Your task to perform on an android device: Go to eBay Image 0: 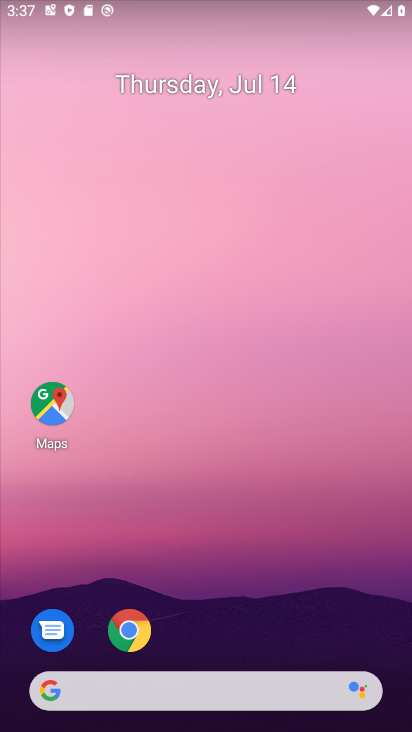
Step 0: click (127, 635)
Your task to perform on an android device: Go to eBay Image 1: 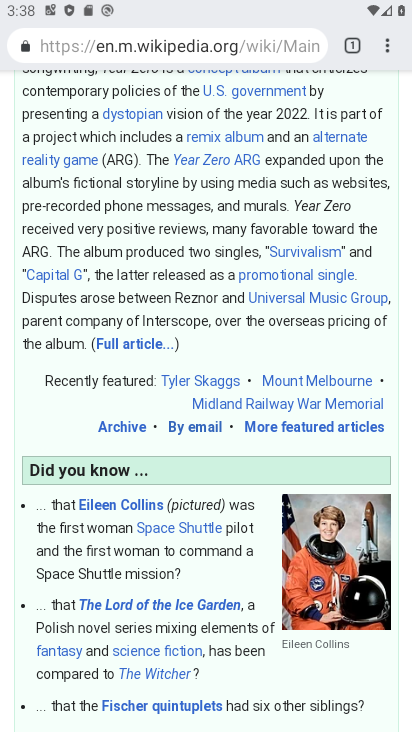
Step 1: click (355, 50)
Your task to perform on an android device: Go to eBay Image 2: 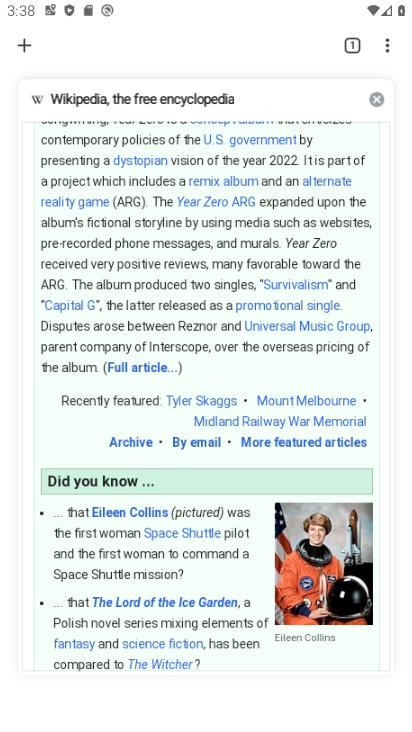
Step 2: click (379, 102)
Your task to perform on an android device: Go to eBay Image 3: 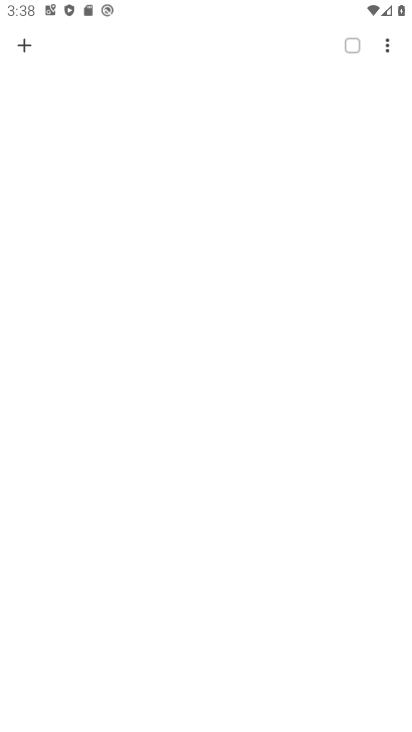
Step 3: click (21, 43)
Your task to perform on an android device: Go to eBay Image 4: 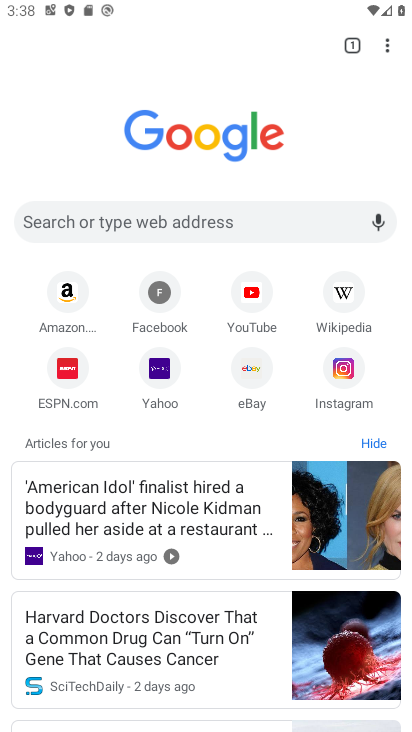
Step 4: click (260, 371)
Your task to perform on an android device: Go to eBay Image 5: 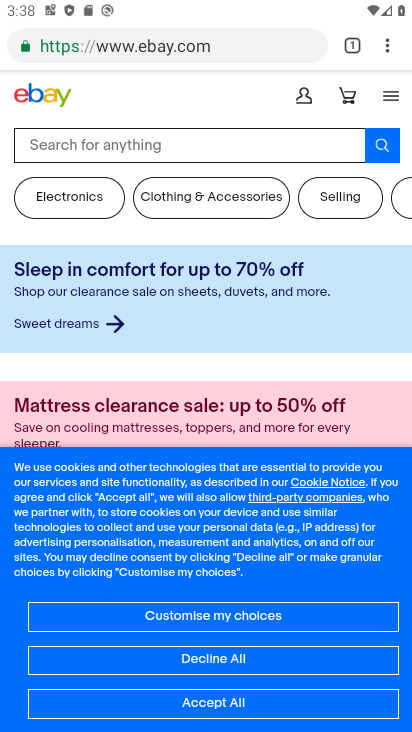
Step 5: task complete